Your task to perform on an android device: Go to accessibility settings Image 0: 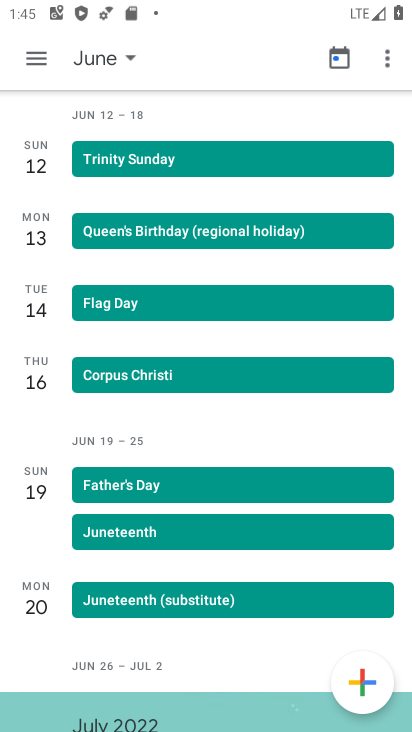
Step 0: press home button
Your task to perform on an android device: Go to accessibility settings Image 1: 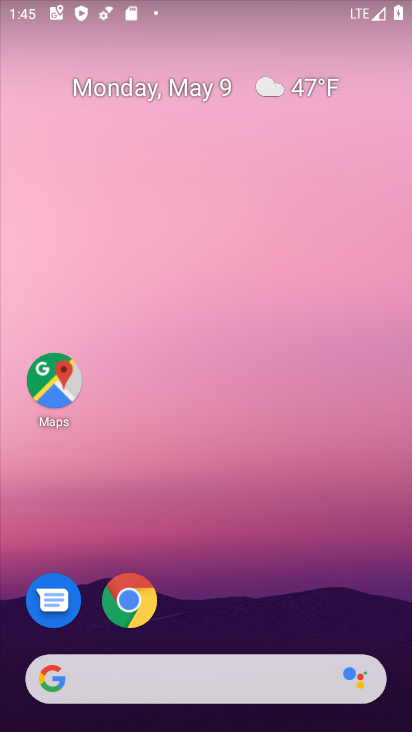
Step 1: drag from (226, 615) to (242, 79)
Your task to perform on an android device: Go to accessibility settings Image 2: 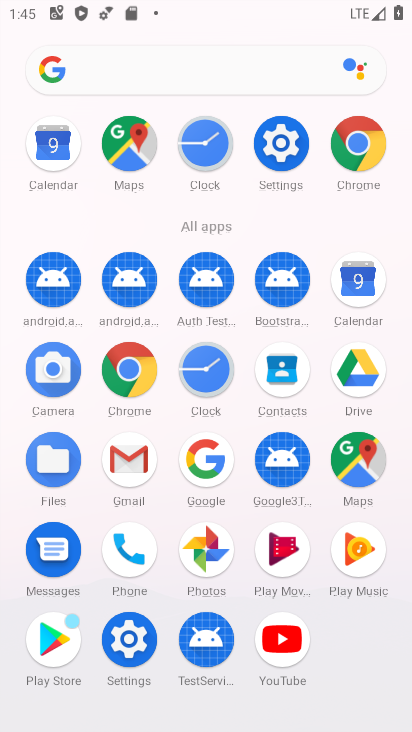
Step 2: click (128, 633)
Your task to perform on an android device: Go to accessibility settings Image 3: 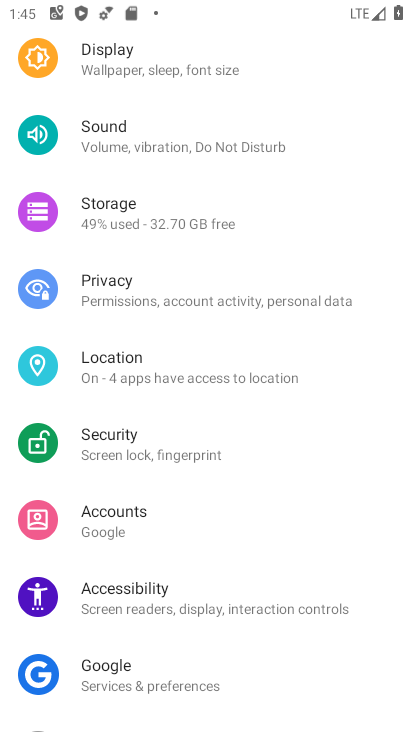
Step 3: click (168, 590)
Your task to perform on an android device: Go to accessibility settings Image 4: 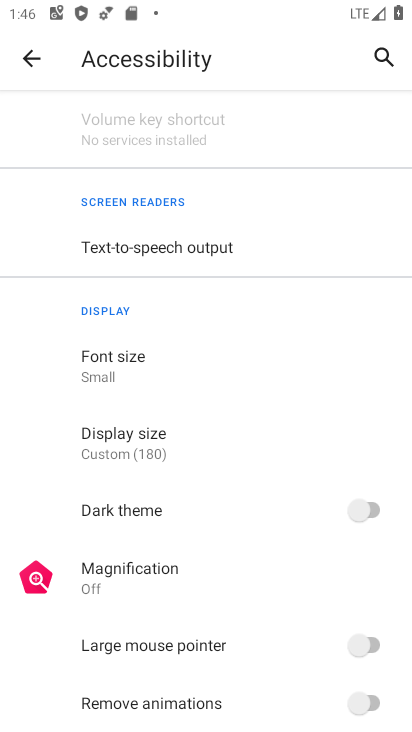
Step 4: task complete